Your task to perform on an android device: open a bookmark in the chrome app Image 0: 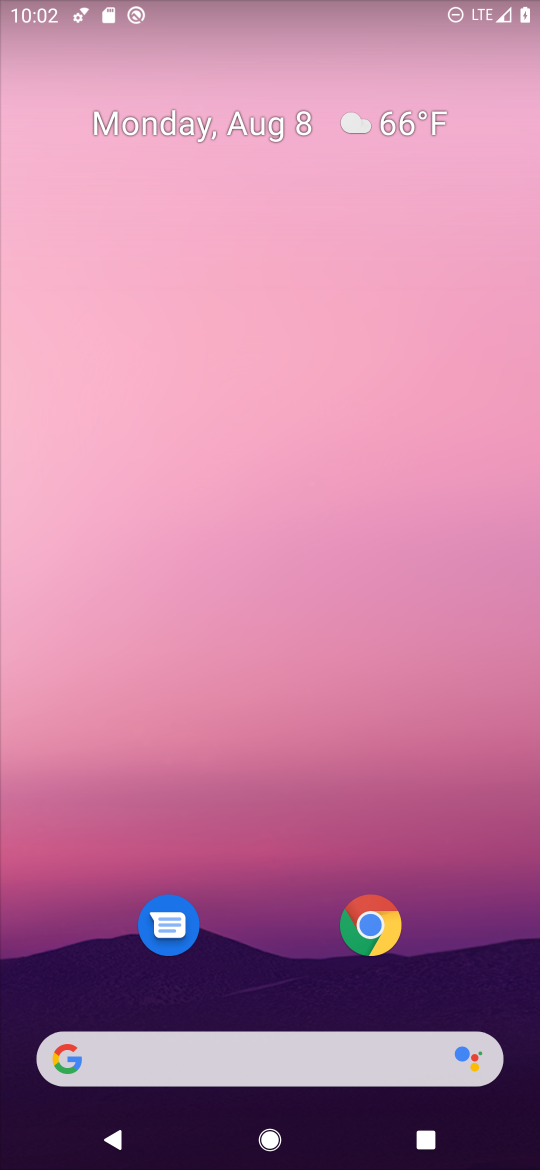
Step 0: drag from (265, 932) to (378, 247)
Your task to perform on an android device: open a bookmark in the chrome app Image 1: 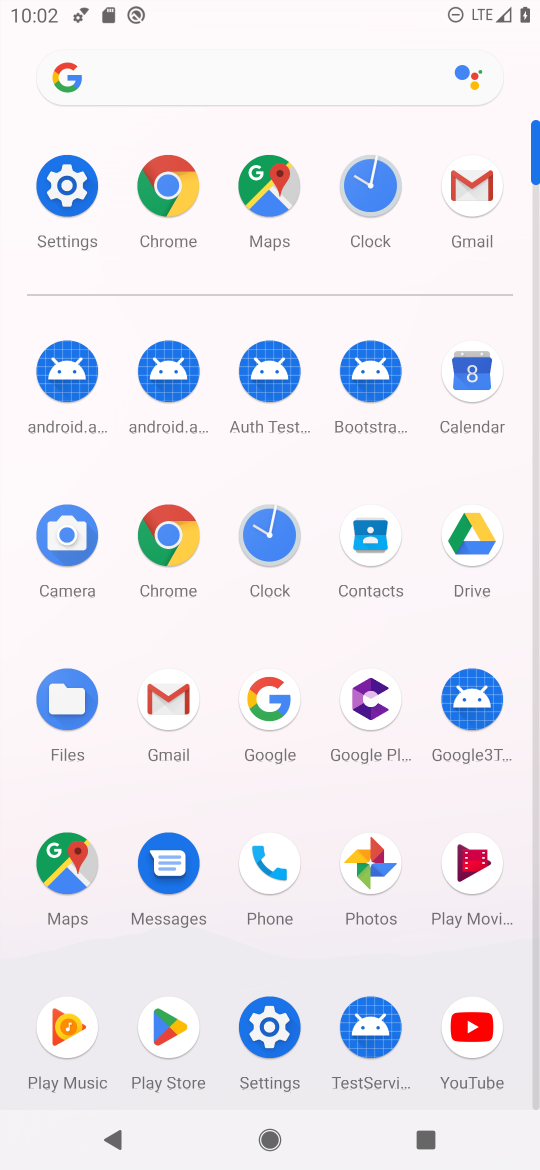
Step 1: click (159, 534)
Your task to perform on an android device: open a bookmark in the chrome app Image 2: 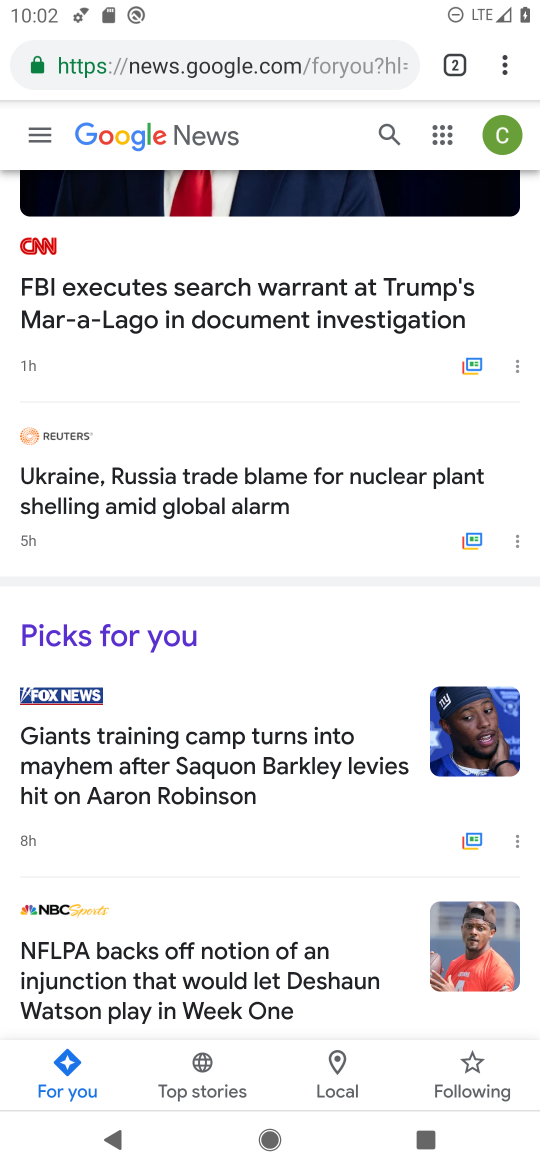
Step 2: drag from (501, 66) to (307, 343)
Your task to perform on an android device: open a bookmark in the chrome app Image 3: 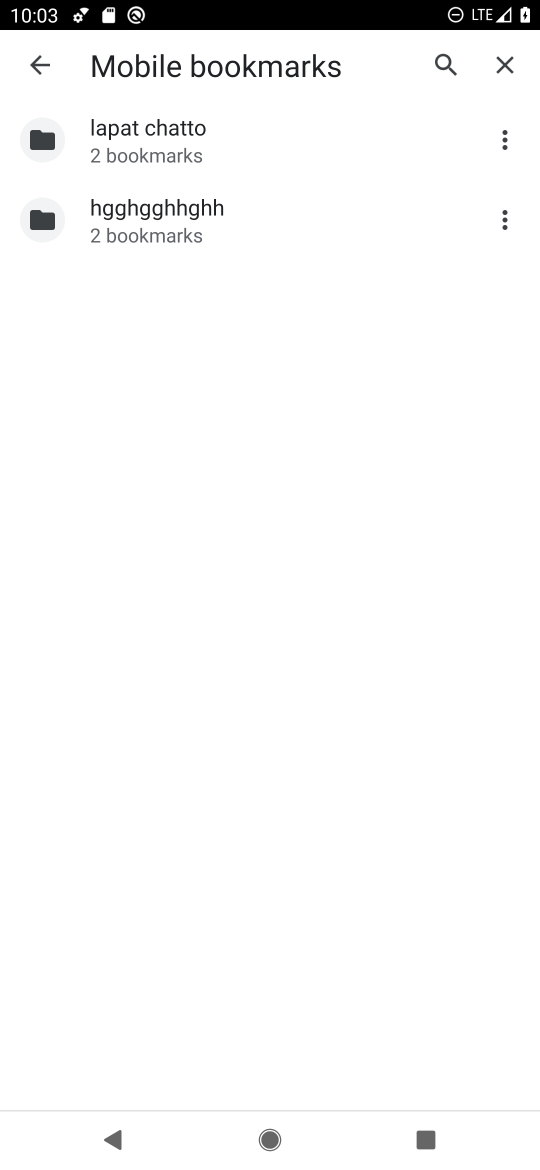
Step 3: click (115, 215)
Your task to perform on an android device: open a bookmark in the chrome app Image 4: 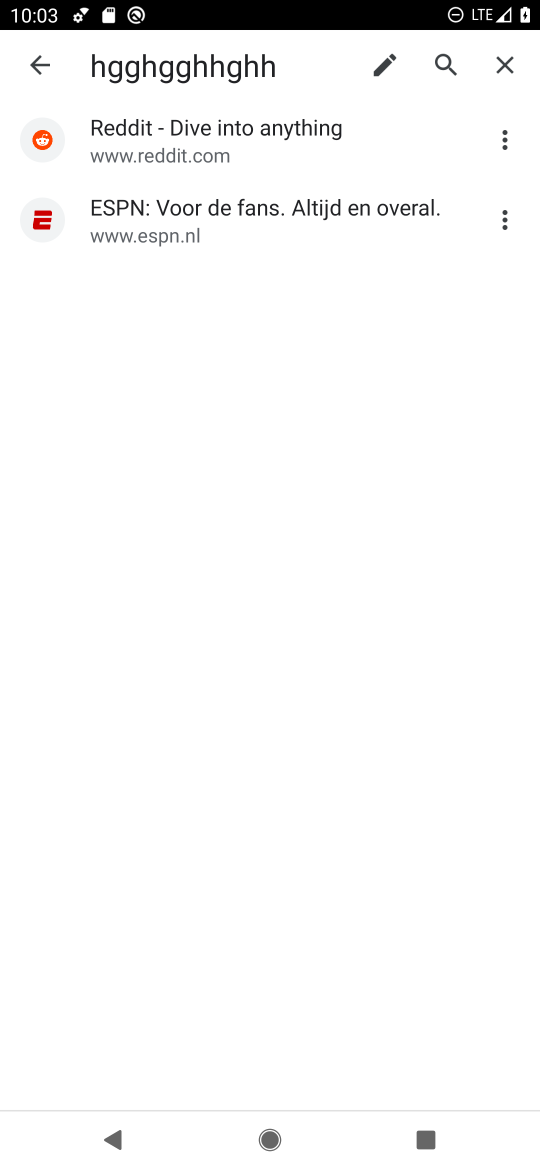
Step 4: click (159, 224)
Your task to perform on an android device: open a bookmark in the chrome app Image 5: 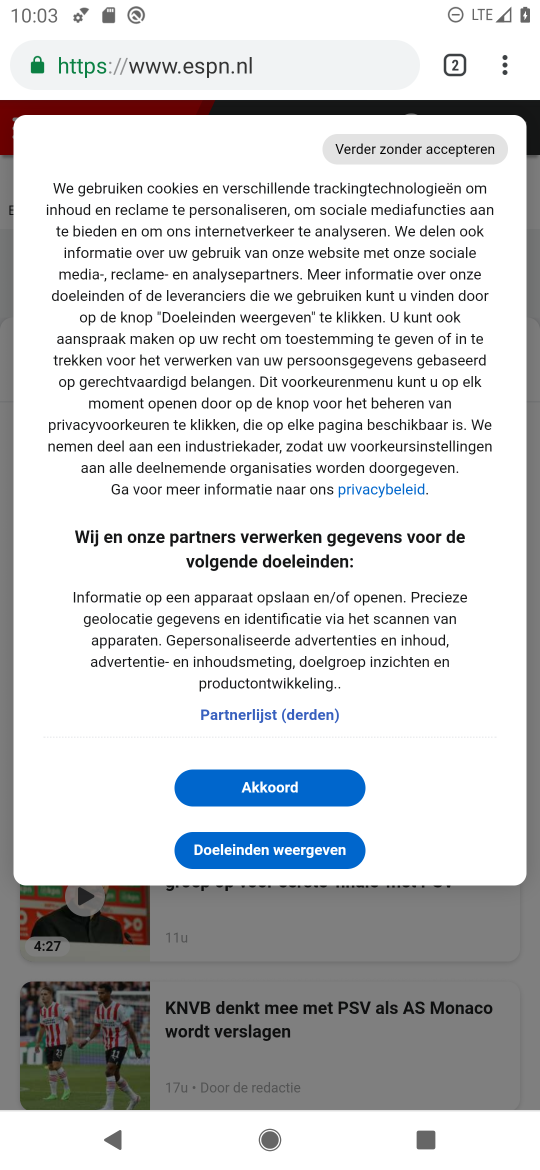
Step 5: task complete